Your task to perform on an android device: toggle show notifications on the lock screen Image 0: 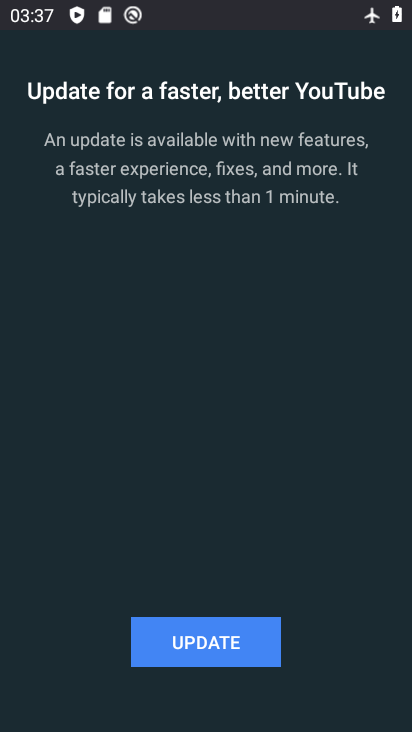
Step 0: press home button
Your task to perform on an android device: toggle show notifications on the lock screen Image 1: 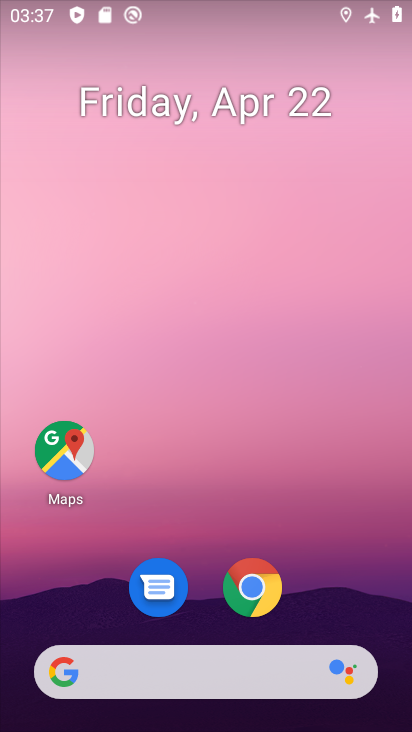
Step 1: drag from (303, 576) to (324, 38)
Your task to perform on an android device: toggle show notifications on the lock screen Image 2: 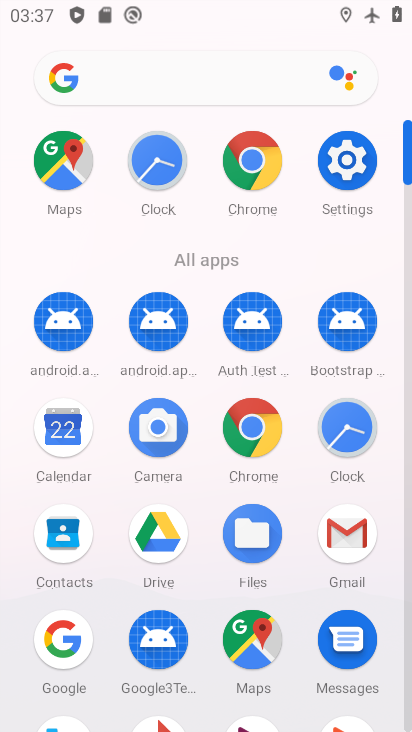
Step 2: click (346, 158)
Your task to perform on an android device: toggle show notifications on the lock screen Image 3: 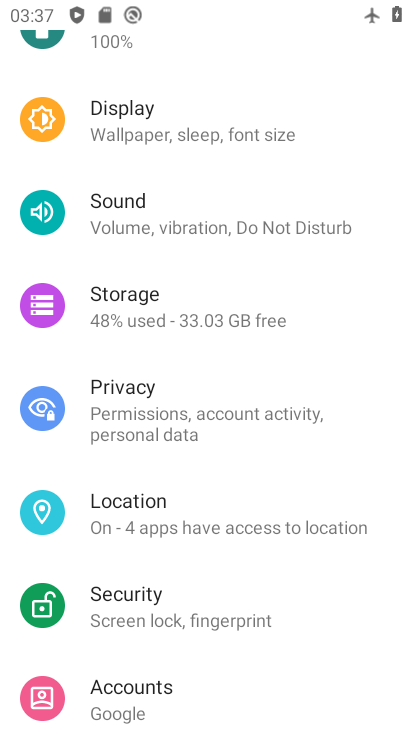
Step 3: drag from (219, 313) to (228, 396)
Your task to perform on an android device: toggle show notifications on the lock screen Image 4: 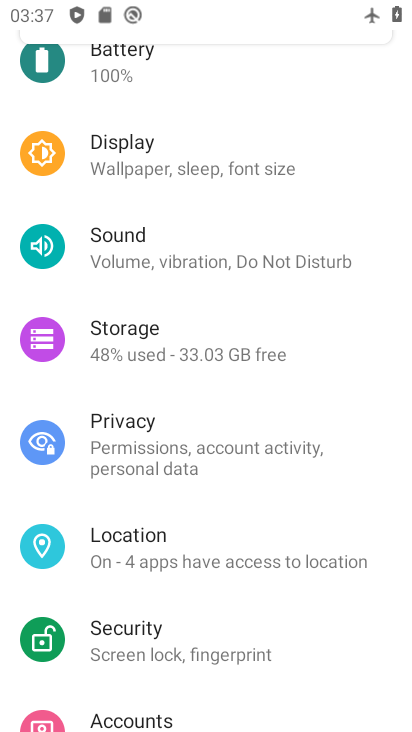
Step 4: drag from (192, 221) to (205, 402)
Your task to perform on an android device: toggle show notifications on the lock screen Image 5: 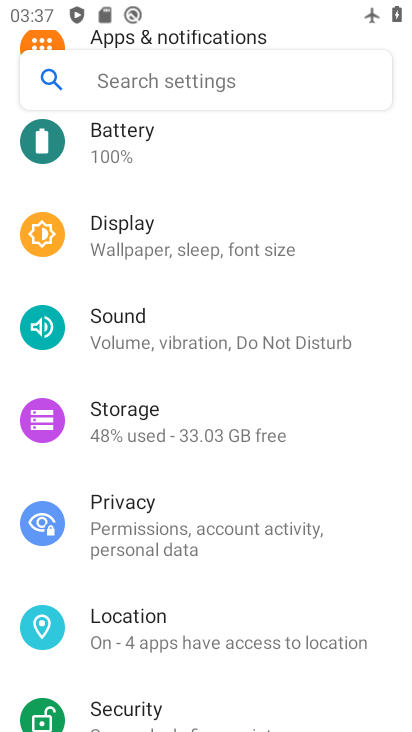
Step 5: drag from (191, 166) to (249, 354)
Your task to perform on an android device: toggle show notifications on the lock screen Image 6: 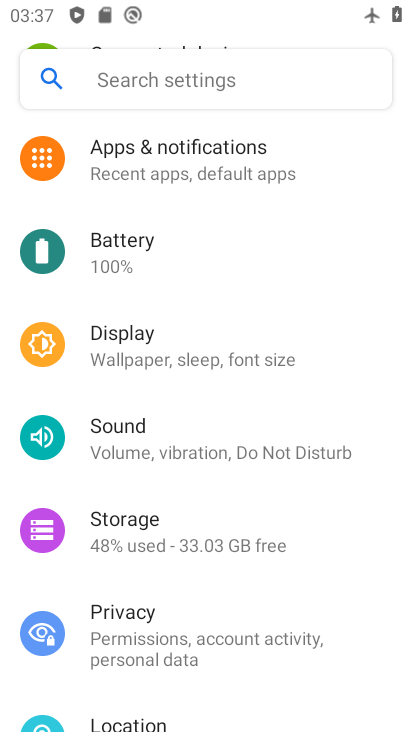
Step 6: click (218, 166)
Your task to perform on an android device: toggle show notifications on the lock screen Image 7: 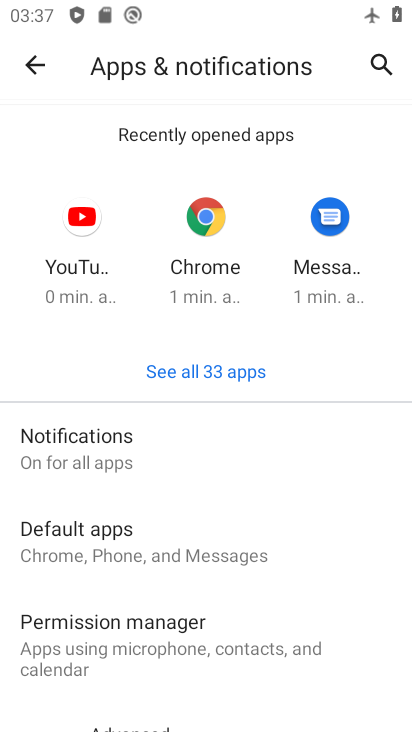
Step 7: click (108, 434)
Your task to perform on an android device: toggle show notifications on the lock screen Image 8: 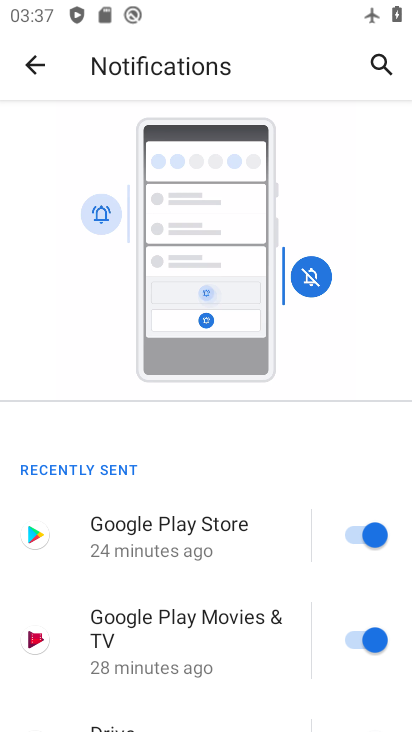
Step 8: drag from (172, 462) to (259, 262)
Your task to perform on an android device: toggle show notifications on the lock screen Image 9: 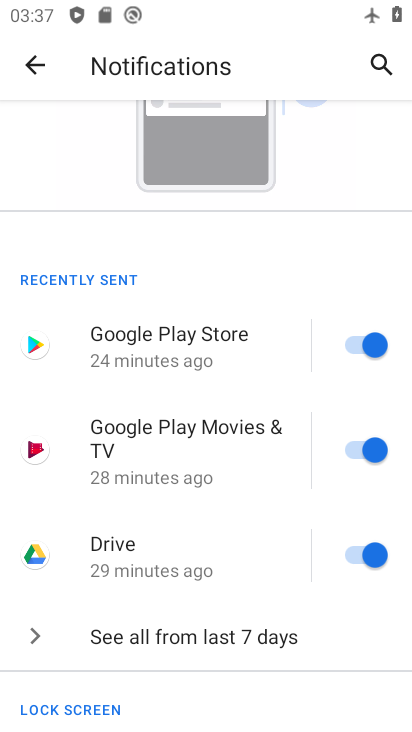
Step 9: drag from (216, 399) to (276, 247)
Your task to perform on an android device: toggle show notifications on the lock screen Image 10: 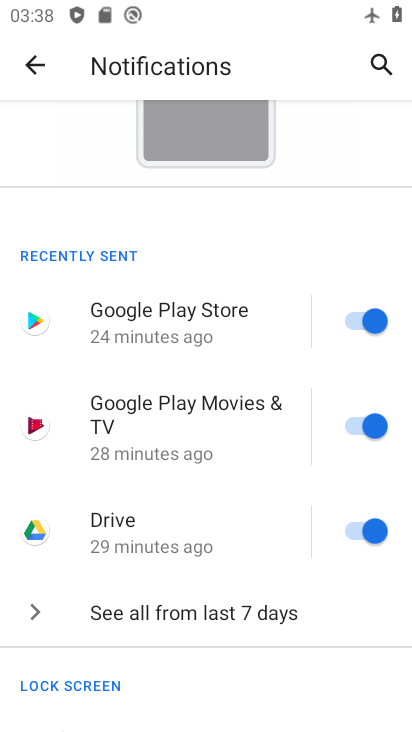
Step 10: drag from (163, 495) to (200, 342)
Your task to perform on an android device: toggle show notifications on the lock screen Image 11: 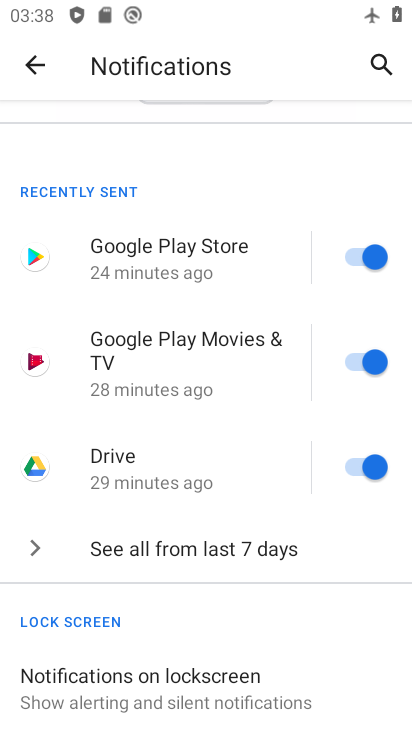
Step 11: drag from (145, 576) to (195, 460)
Your task to perform on an android device: toggle show notifications on the lock screen Image 12: 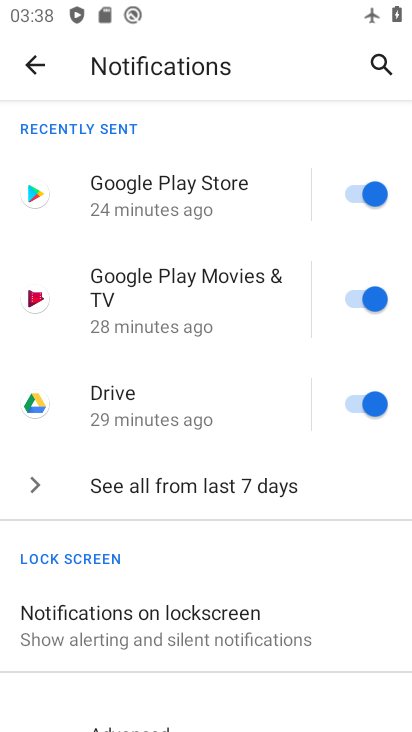
Step 12: click (146, 624)
Your task to perform on an android device: toggle show notifications on the lock screen Image 13: 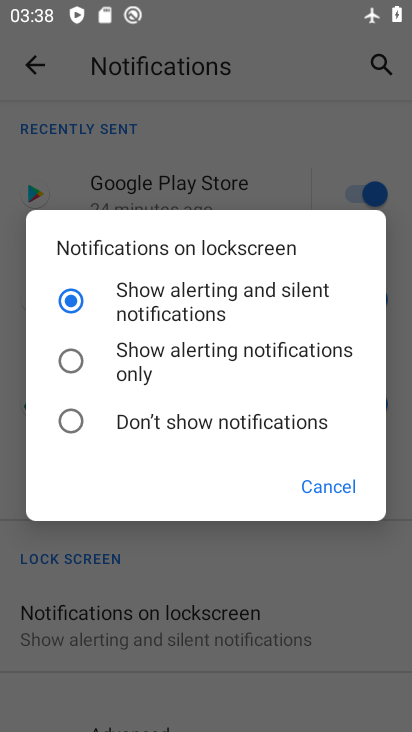
Step 13: click (71, 424)
Your task to perform on an android device: toggle show notifications on the lock screen Image 14: 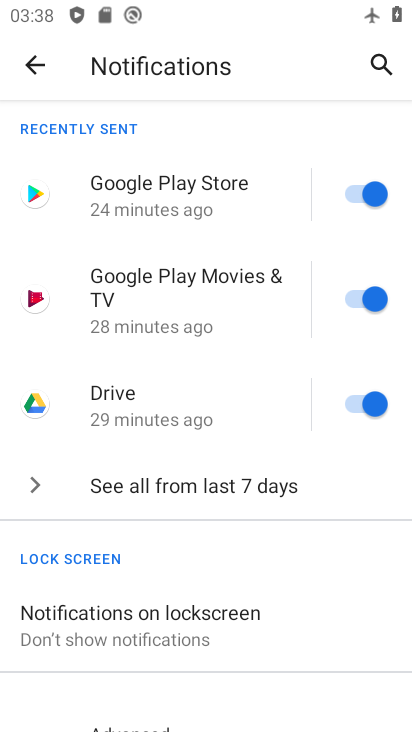
Step 14: task complete